Your task to perform on an android device: open app "Airtel Thanks" Image 0: 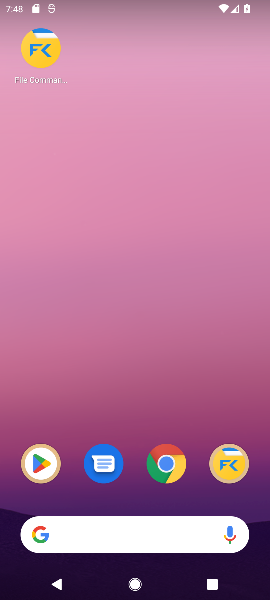
Step 0: click (33, 470)
Your task to perform on an android device: open app "Airtel Thanks" Image 1: 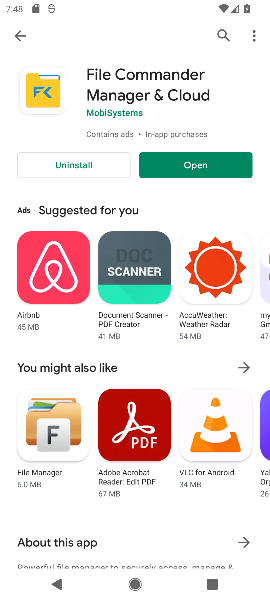
Step 1: click (229, 35)
Your task to perform on an android device: open app "Airtel Thanks" Image 2: 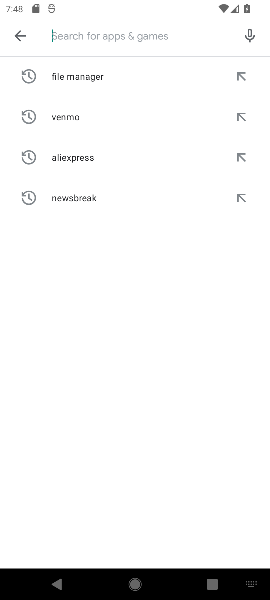
Step 2: type "airtel"
Your task to perform on an android device: open app "Airtel Thanks" Image 3: 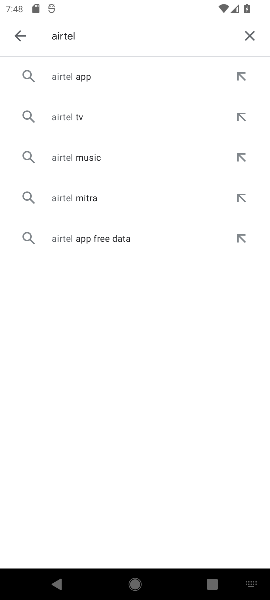
Step 3: click (233, 80)
Your task to perform on an android device: open app "Airtel Thanks" Image 4: 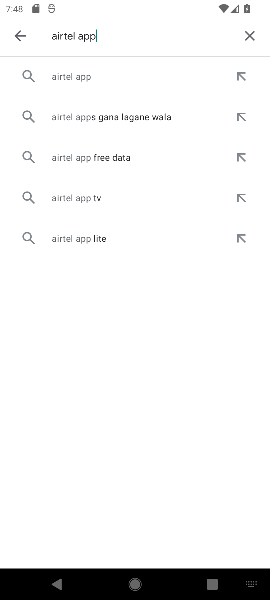
Step 4: click (154, 78)
Your task to perform on an android device: open app "Airtel Thanks" Image 5: 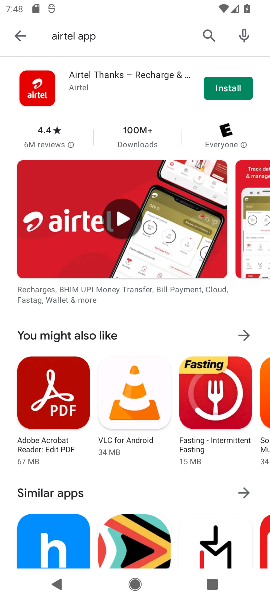
Step 5: click (226, 86)
Your task to perform on an android device: open app "Airtel Thanks" Image 6: 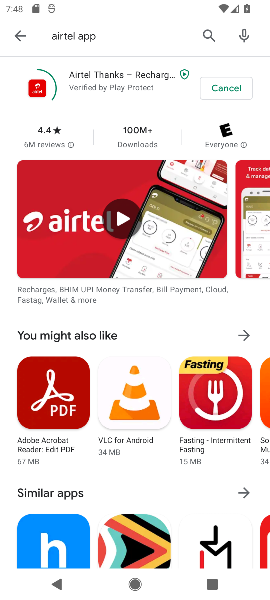
Step 6: task complete